Your task to perform on an android device: Open privacy settings Image 0: 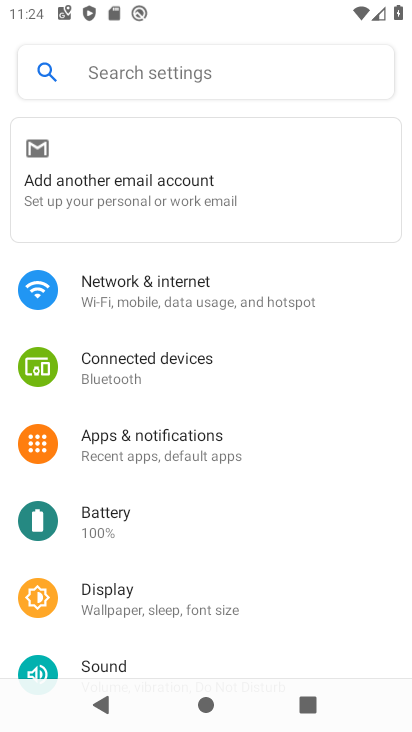
Step 0: drag from (262, 534) to (169, 128)
Your task to perform on an android device: Open privacy settings Image 1: 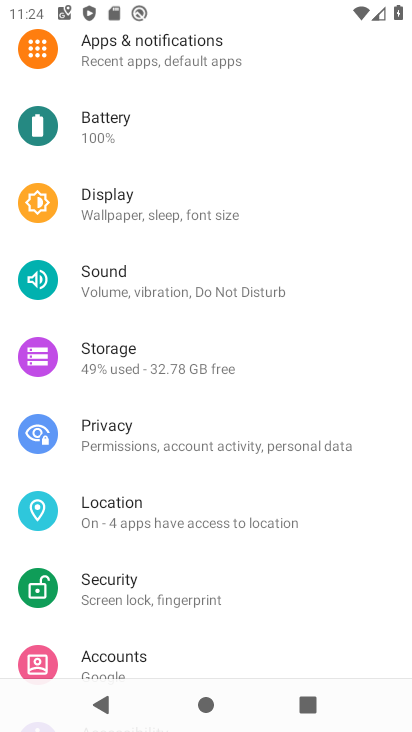
Step 1: click (95, 426)
Your task to perform on an android device: Open privacy settings Image 2: 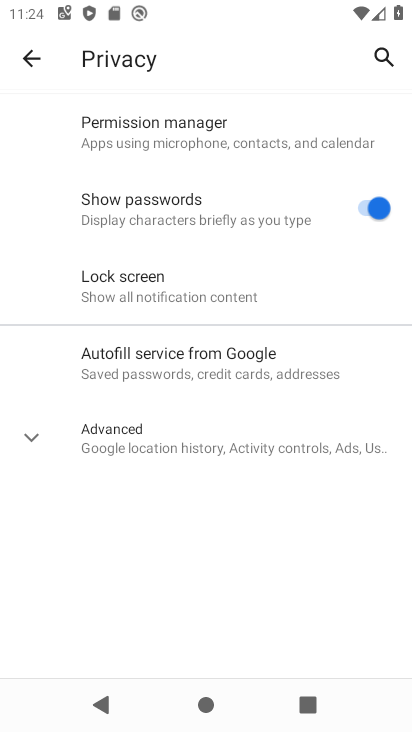
Step 2: task complete